Your task to perform on an android device: turn off sleep mode Image 0: 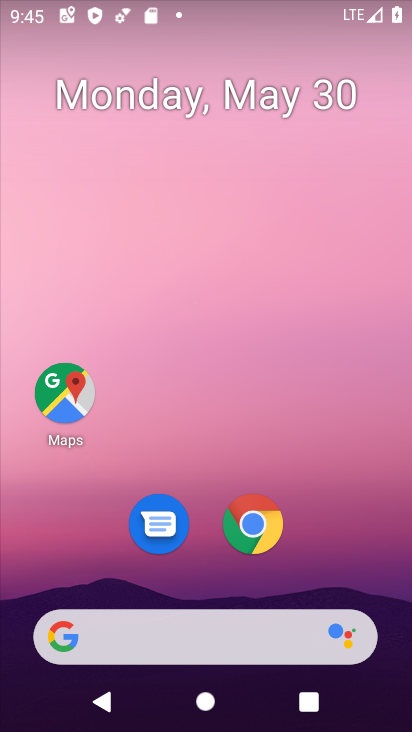
Step 0: drag from (302, 558) to (295, 30)
Your task to perform on an android device: turn off sleep mode Image 1: 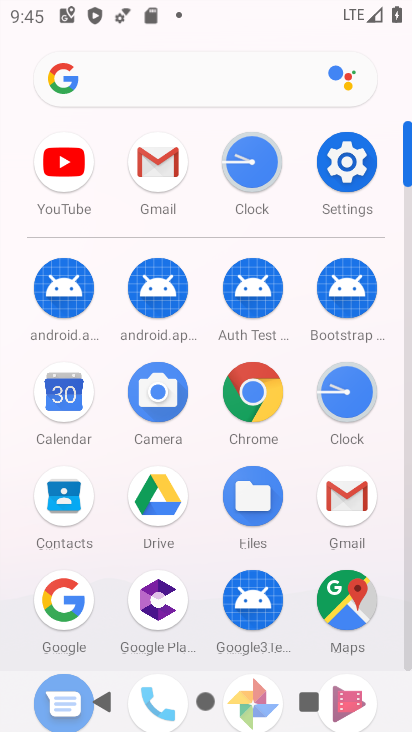
Step 1: click (346, 147)
Your task to perform on an android device: turn off sleep mode Image 2: 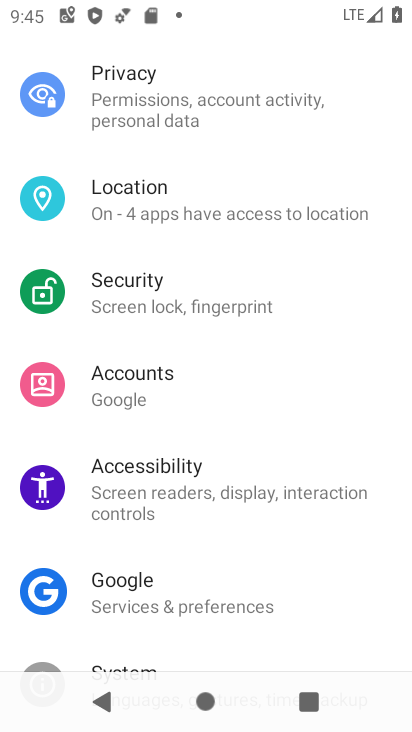
Step 2: drag from (241, 168) to (231, 616)
Your task to perform on an android device: turn off sleep mode Image 3: 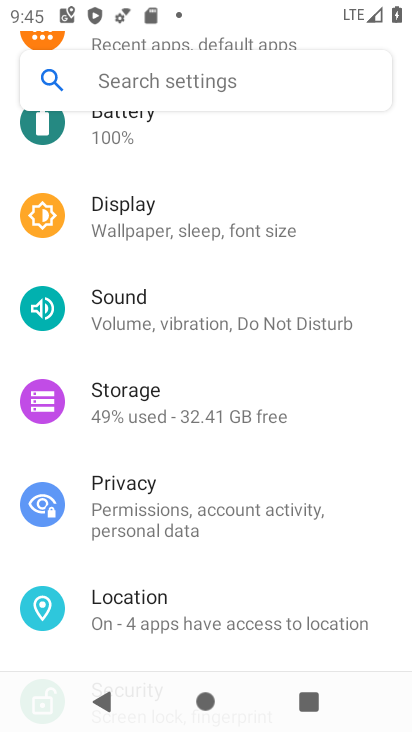
Step 3: click (236, 222)
Your task to perform on an android device: turn off sleep mode Image 4: 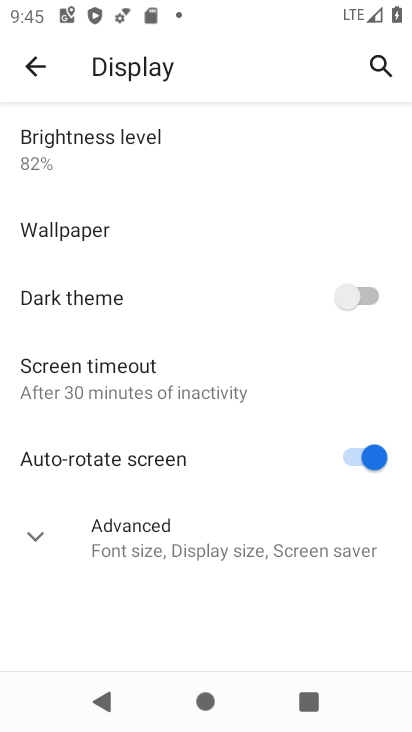
Step 4: click (35, 538)
Your task to perform on an android device: turn off sleep mode Image 5: 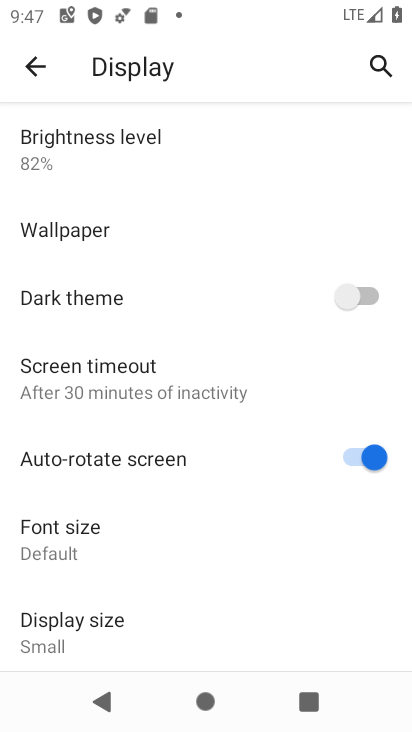
Step 5: task complete